Your task to perform on an android device: Open Chrome and go to settings Image 0: 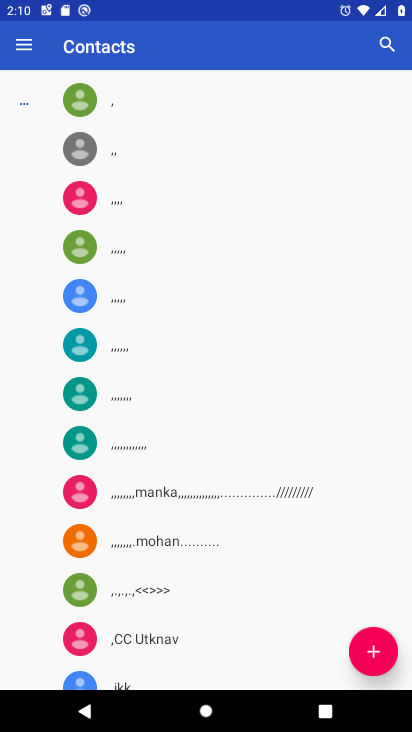
Step 0: press home button
Your task to perform on an android device: Open Chrome and go to settings Image 1: 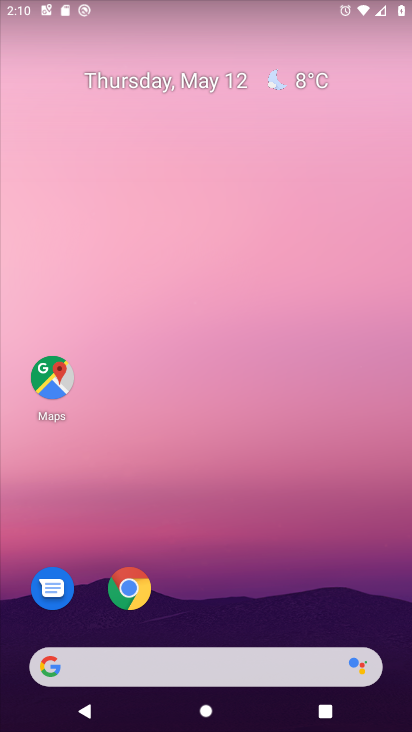
Step 1: drag from (362, 534) to (390, 80)
Your task to perform on an android device: Open Chrome and go to settings Image 2: 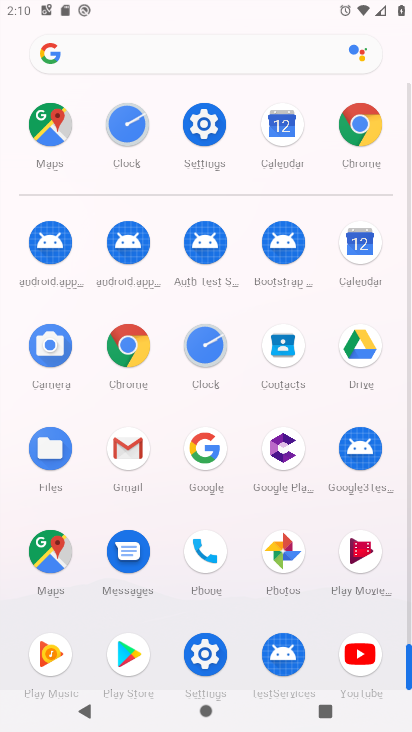
Step 2: click (380, 132)
Your task to perform on an android device: Open Chrome and go to settings Image 3: 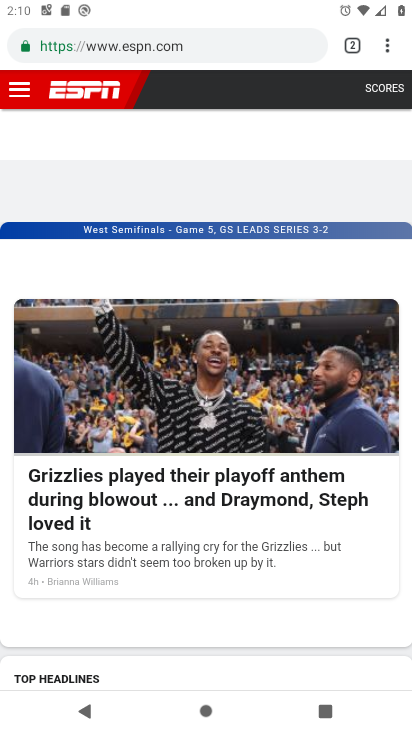
Step 3: task complete